Your task to perform on an android device: Search for the best pizza restaurants on Maps Image 0: 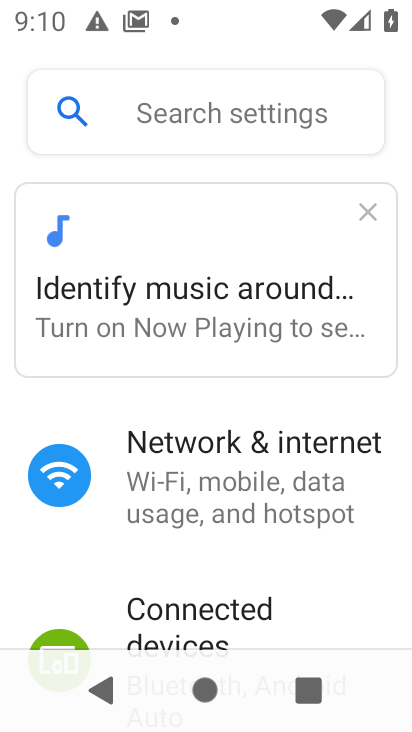
Step 0: press home button
Your task to perform on an android device: Search for the best pizza restaurants on Maps Image 1: 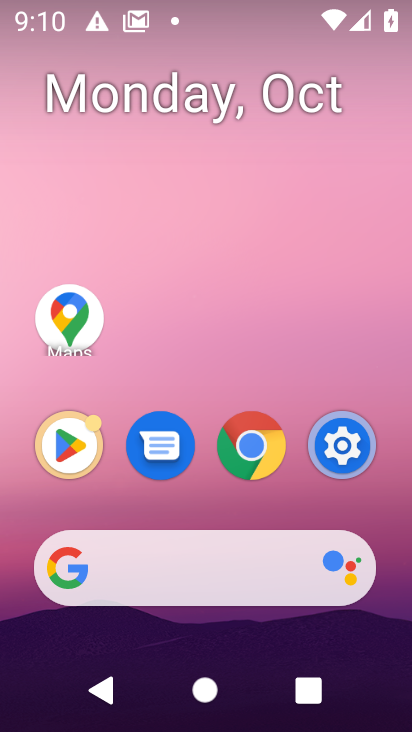
Step 1: click (90, 340)
Your task to perform on an android device: Search for the best pizza restaurants on Maps Image 2: 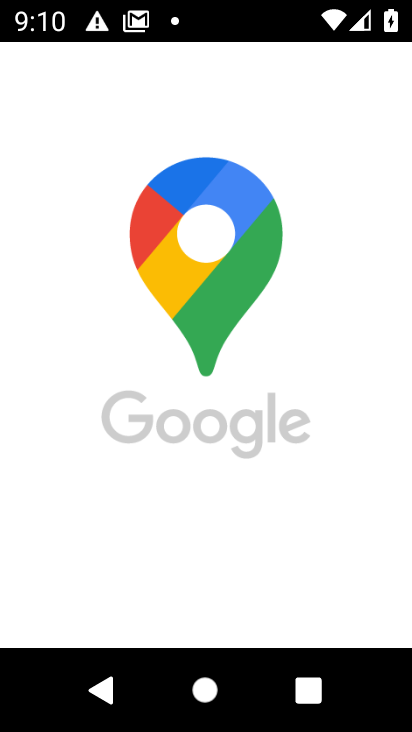
Step 2: click (383, 286)
Your task to perform on an android device: Search for the best pizza restaurants on Maps Image 3: 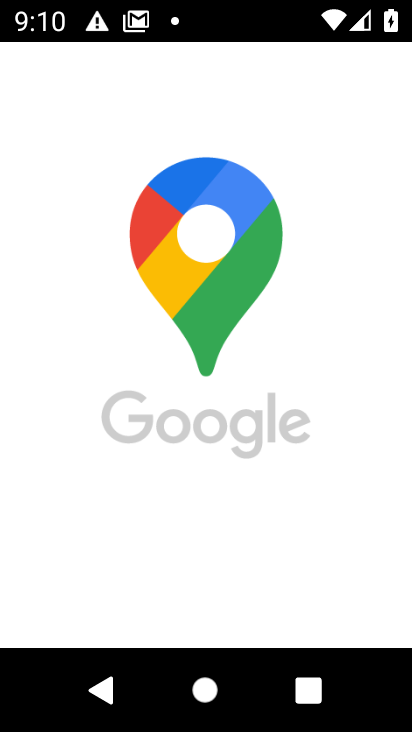
Step 3: task complete